Your task to perform on an android device: Open my contact list Image 0: 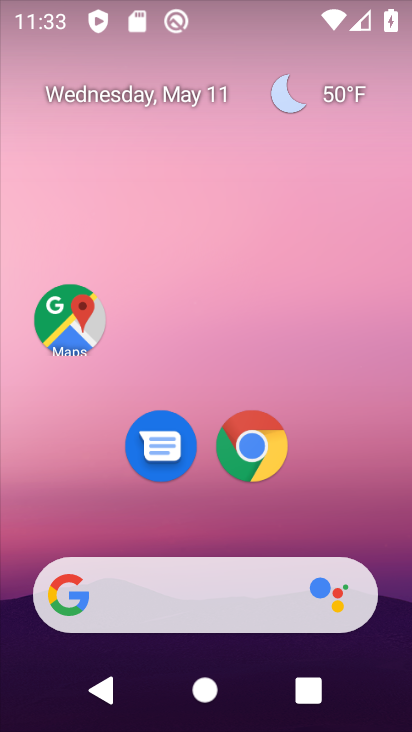
Step 0: drag from (330, 528) to (304, 46)
Your task to perform on an android device: Open my contact list Image 1: 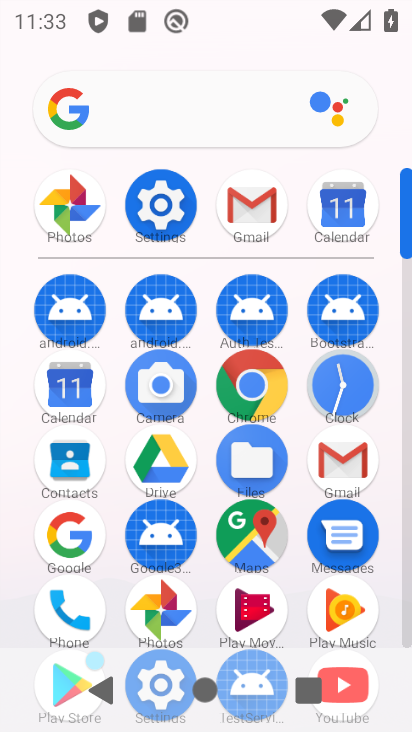
Step 1: click (155, 207)
Your task to perform on an android device: Open my contact list Image 2: 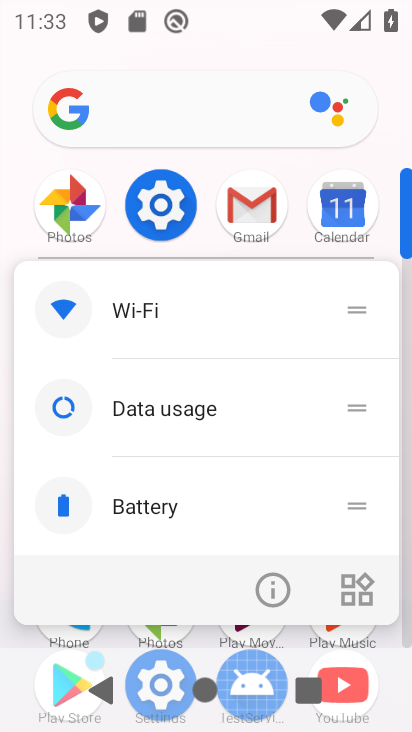
Step 2: press home button
Your task to perform on an android device: Open my contact list Image 3: 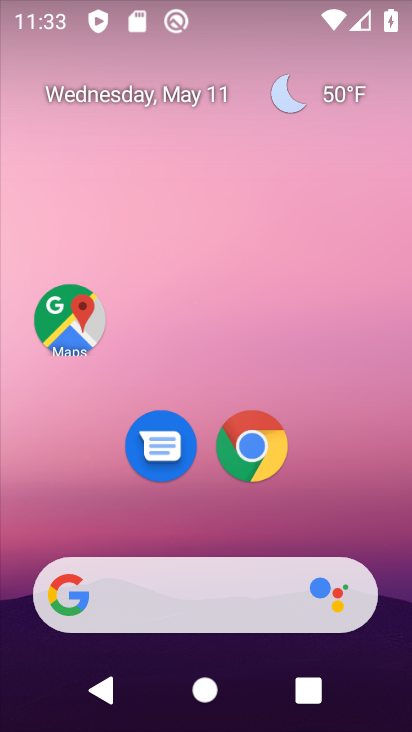
Step 3: drag from (302, 487) to (288, 194)
Your task to perform on an android device: Open my contact list Image 4: 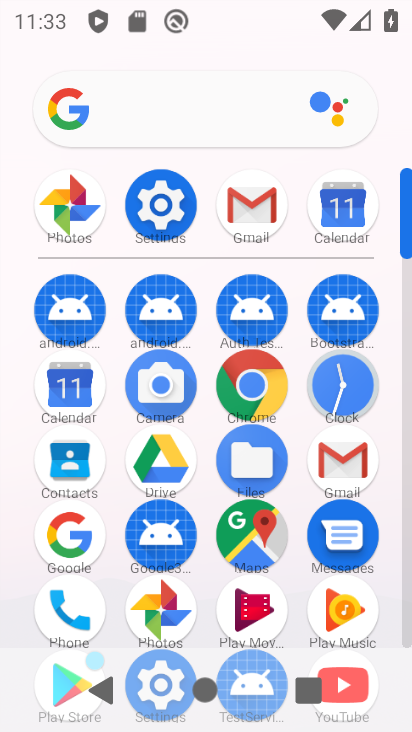
Step 4: click (75, 467)
Your task to perform on an android device: Open my contact list Image 5: 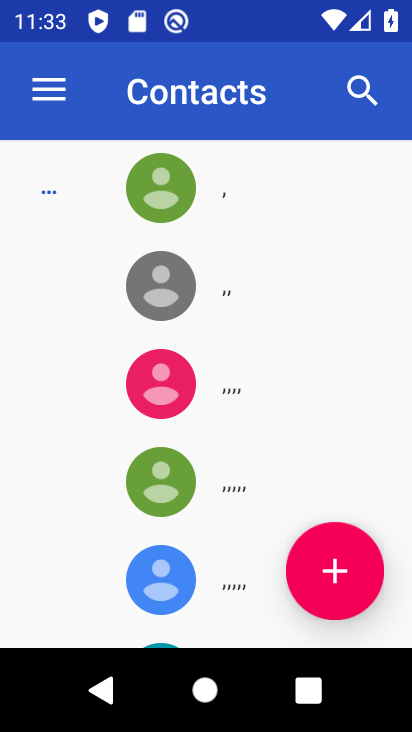
Step 5: task complete